Your task to perform on an android device: change notifications settings Image 0: 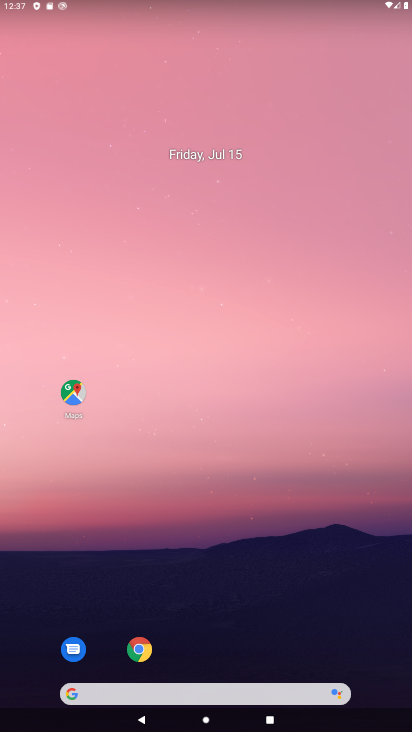
Step 0: drag from (243, 672) to (244, 153)
Your task to perform on an android device: change notifications settings Image 1: 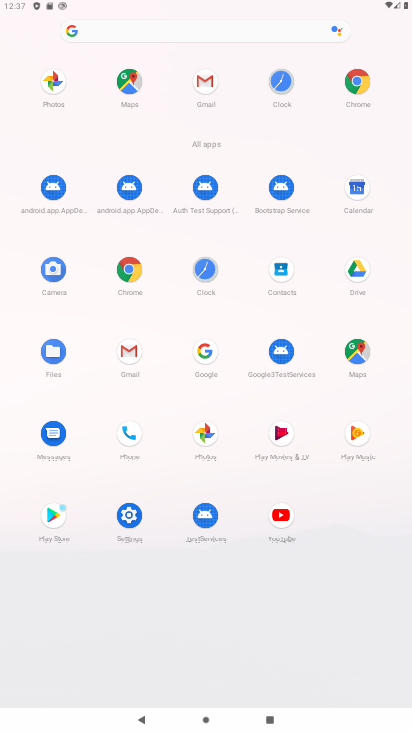
Step 1: click (131, 522)
Your task to perform on an android device: change notifications settings Image 2: 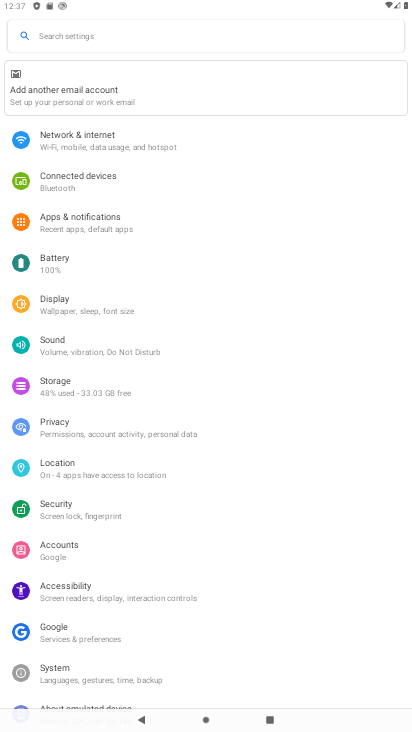
Step 2: click (115, 220)
Your task to perform on an android device: change notifications settings Image 3: 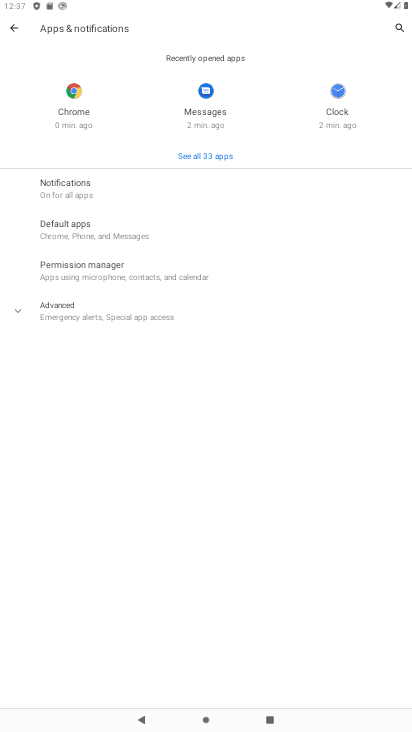
Step 3: click (116, 185)
Your task to perform on an android device: change notifications settings Image 4: 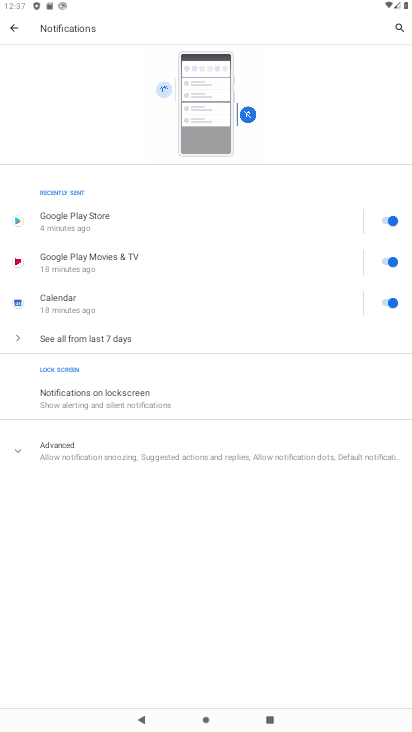
Step 4: click (199, 346)
Your task to perform on an android device: change notifications settings Image 5: 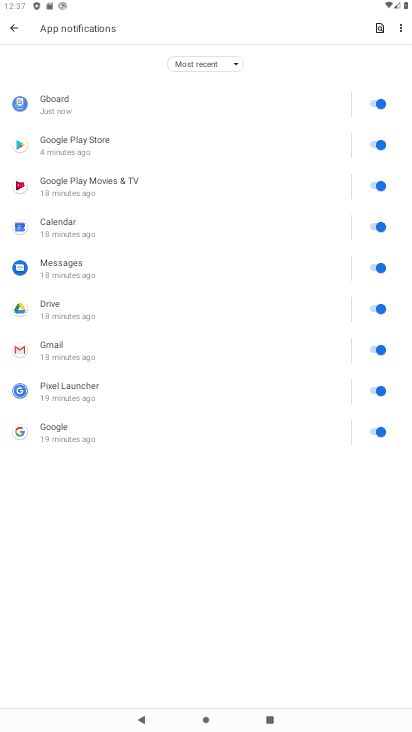
Step 5: click (369, 95)
Your task to perform on an android device: change notifications settings Image 6: 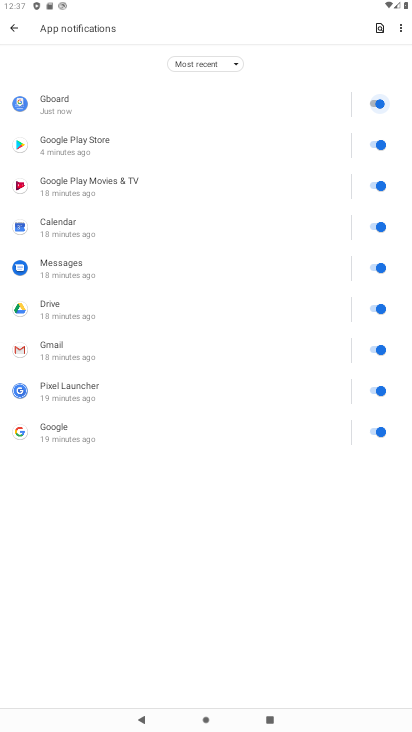
Step 6: click (377, 140)
Your task to perform on an android device: change notifications settings Image 7: 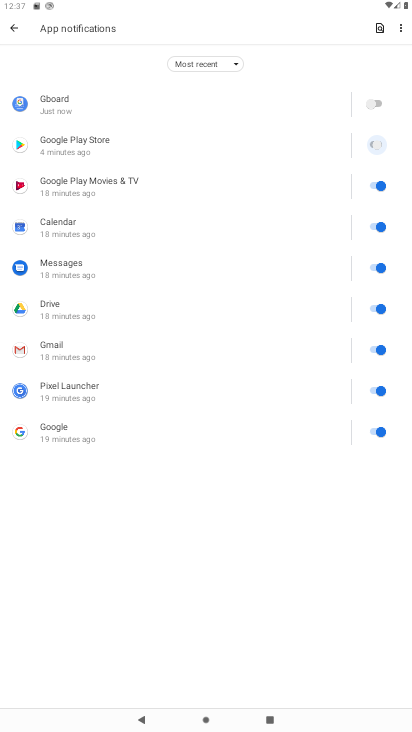
Step 7: click (377, 197)
Your task to perform on an android device: change notifications settings Image 8: 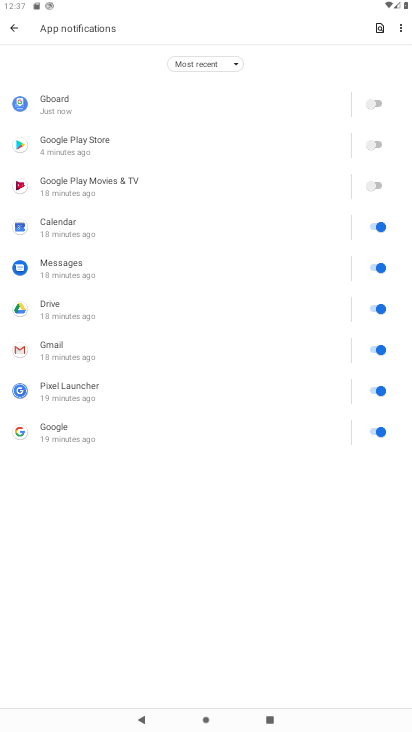
Step 8: click (373, 240)
Your task to perform on an android device: change notifications settings Image 9: 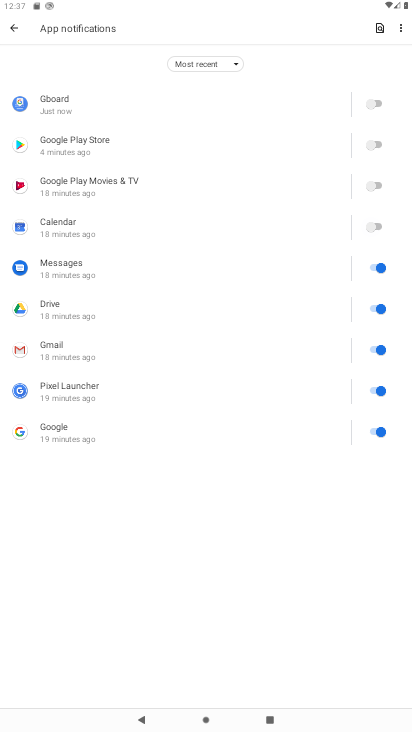
Step 9: click (377, 275)
Your task to perform on an android device: change notifications settings Image 10: 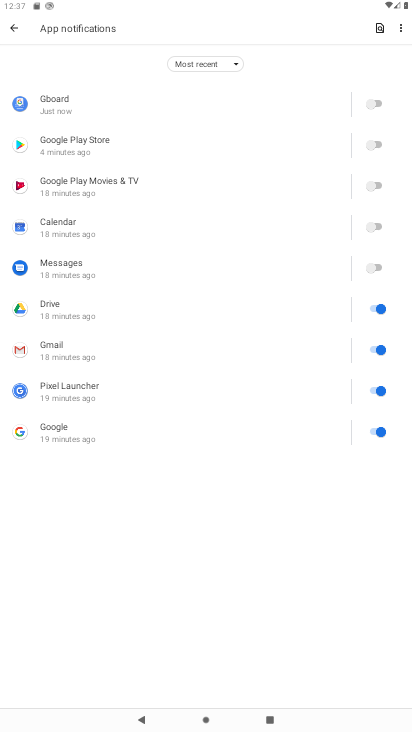
Step 10: click (381, 314)
Your task to perform on an android device: change notifications settings Image 11: 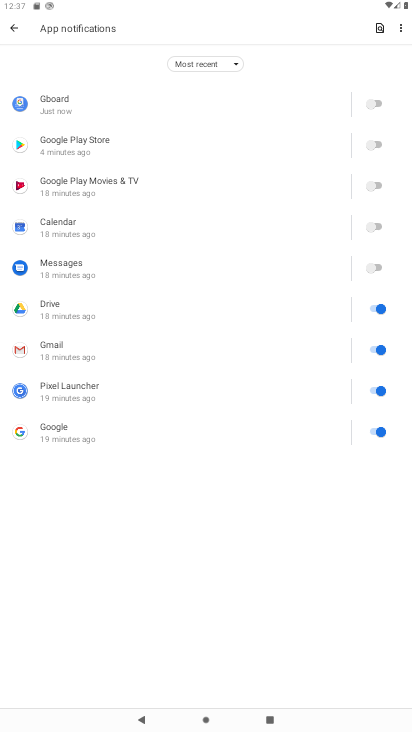
Step 11: click (381, 328)
Your task to perform on an android device: change notifications settings Image 12: 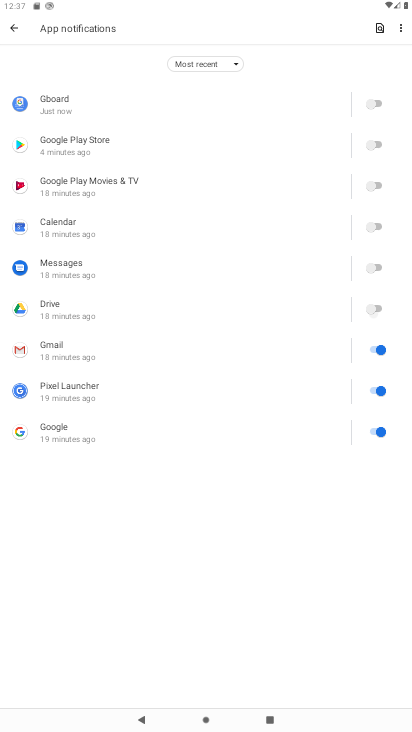
Step 12: click (381, 354)
Your task to perform on an android device: change notifications settings Image 13: 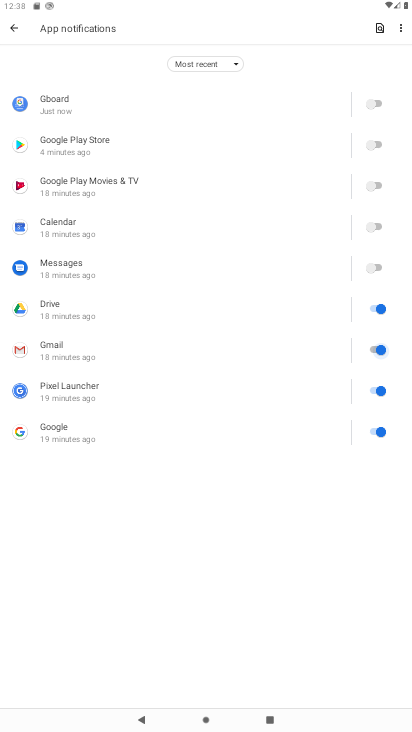
Step 13: click (378, 420)
Your task to perform on an android device: change notifications settings Image 14: 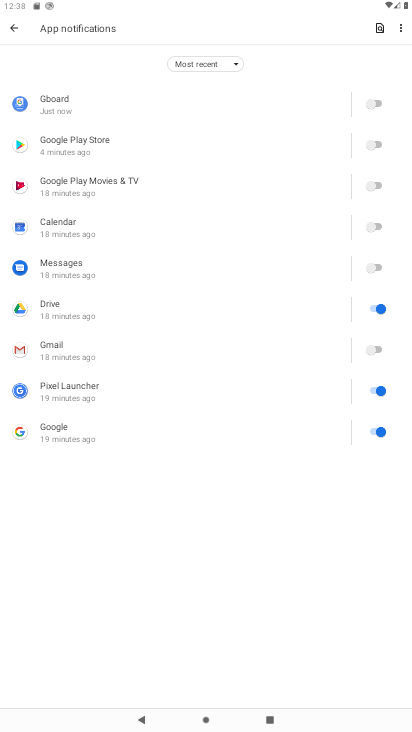
Step 14: click (378, 400)
Your task to perform on an android device: change notifications settings Image 15: 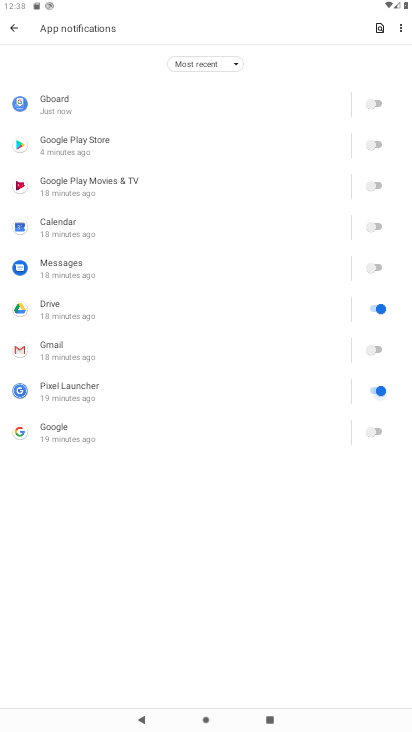
Step 15: click (370, 438)
Your task to perform on an android device: change notifications settings Image 16: 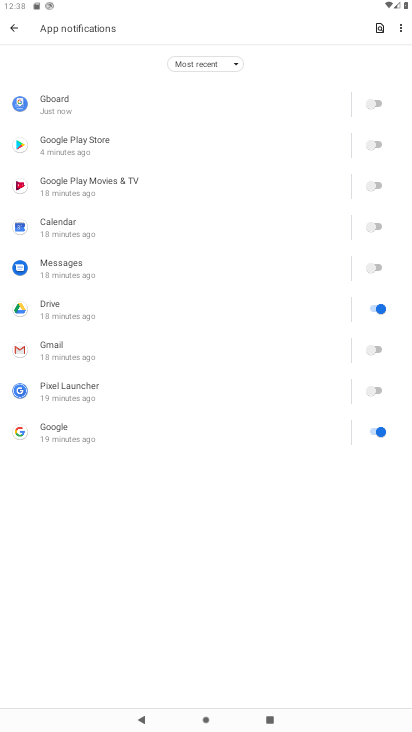
Step 16: click (378, 430)
Your task to perform on an android device: change notifications settings Image 17: 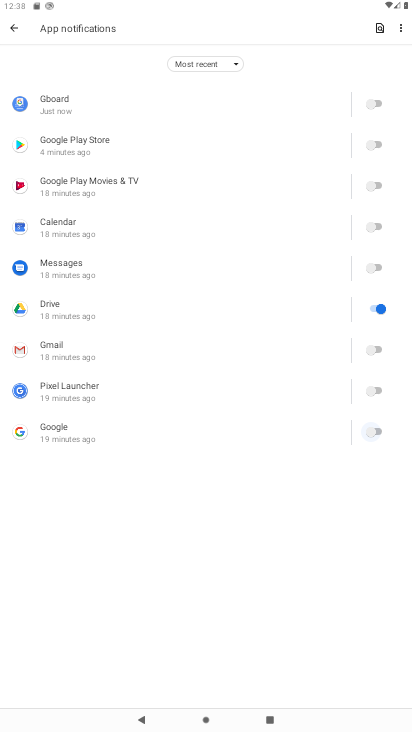
Step 17: click (371, 300)
Your task to perform on an android device: change notifications settings Image 18: 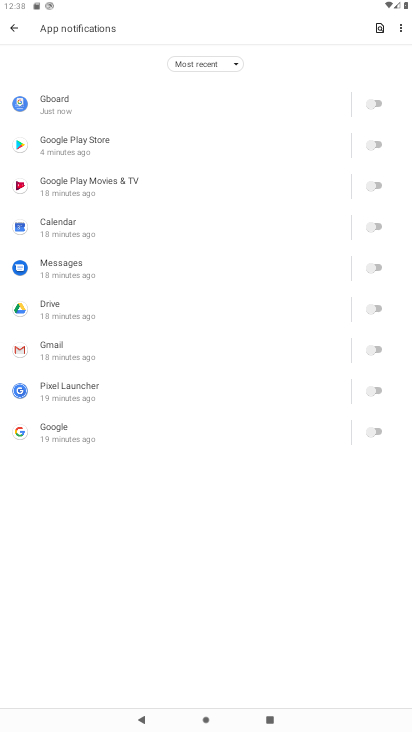
Step 18: task complete